Your task to perform on an android device: open app "Grab" Image 0: 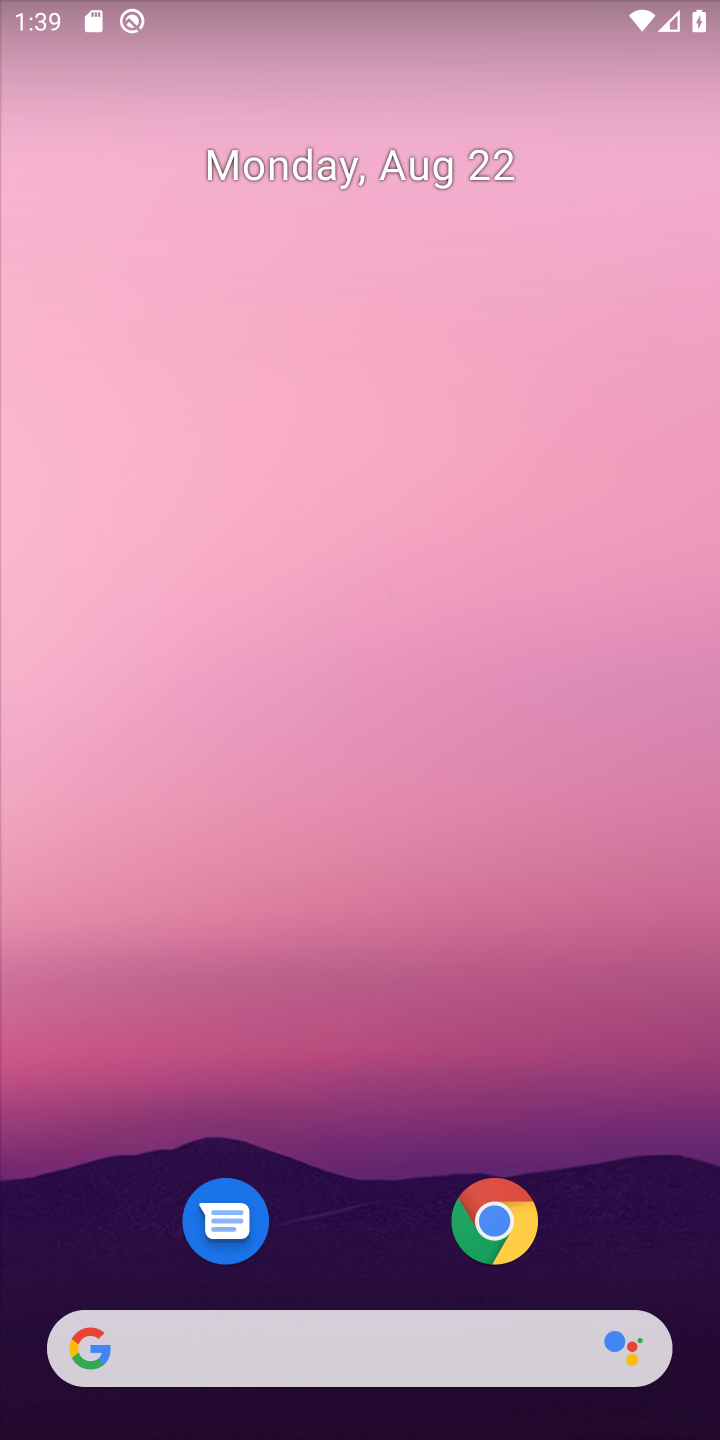
Step 0: press home button
Your task to perform on an android device: open app "Grab" Image 1: 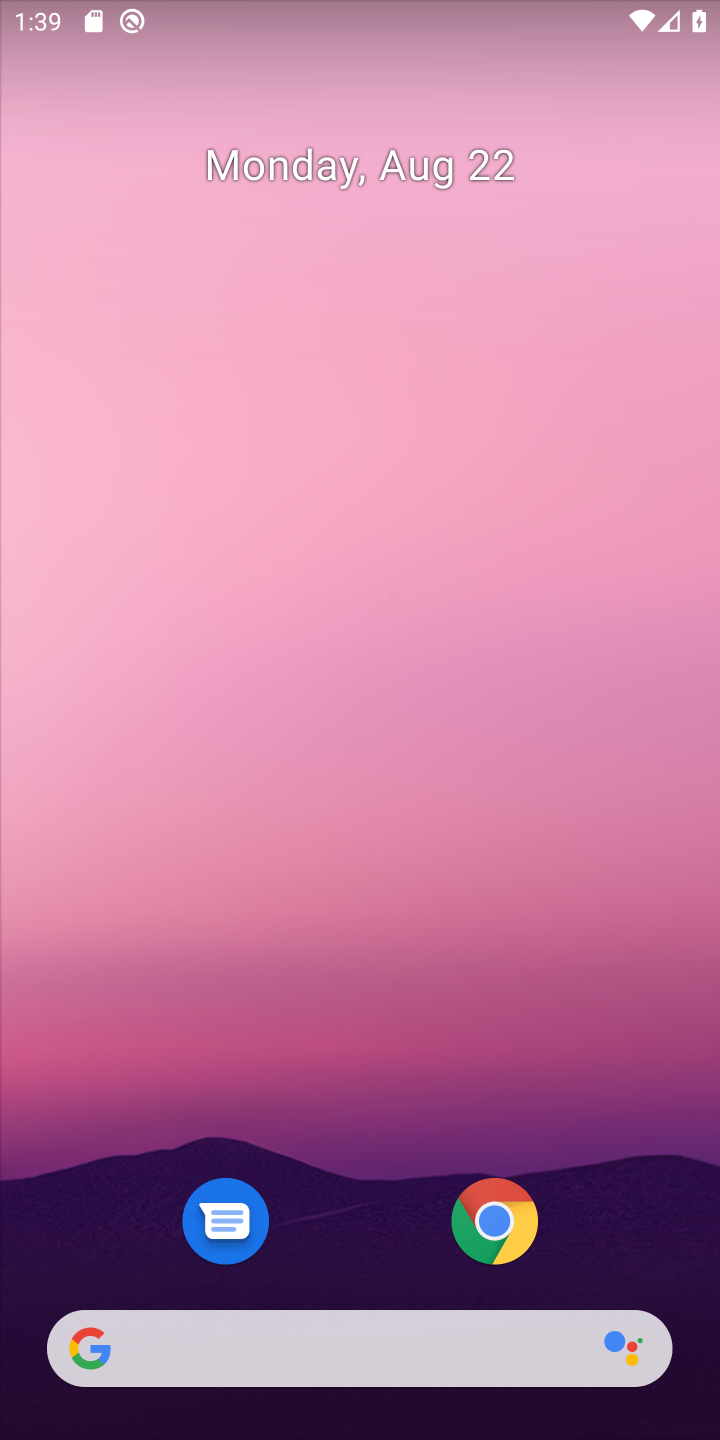
Step 1: drag from (379, 1255) to (631, 254)
Your task to perform on an android device: open app "Grab" Image 2: 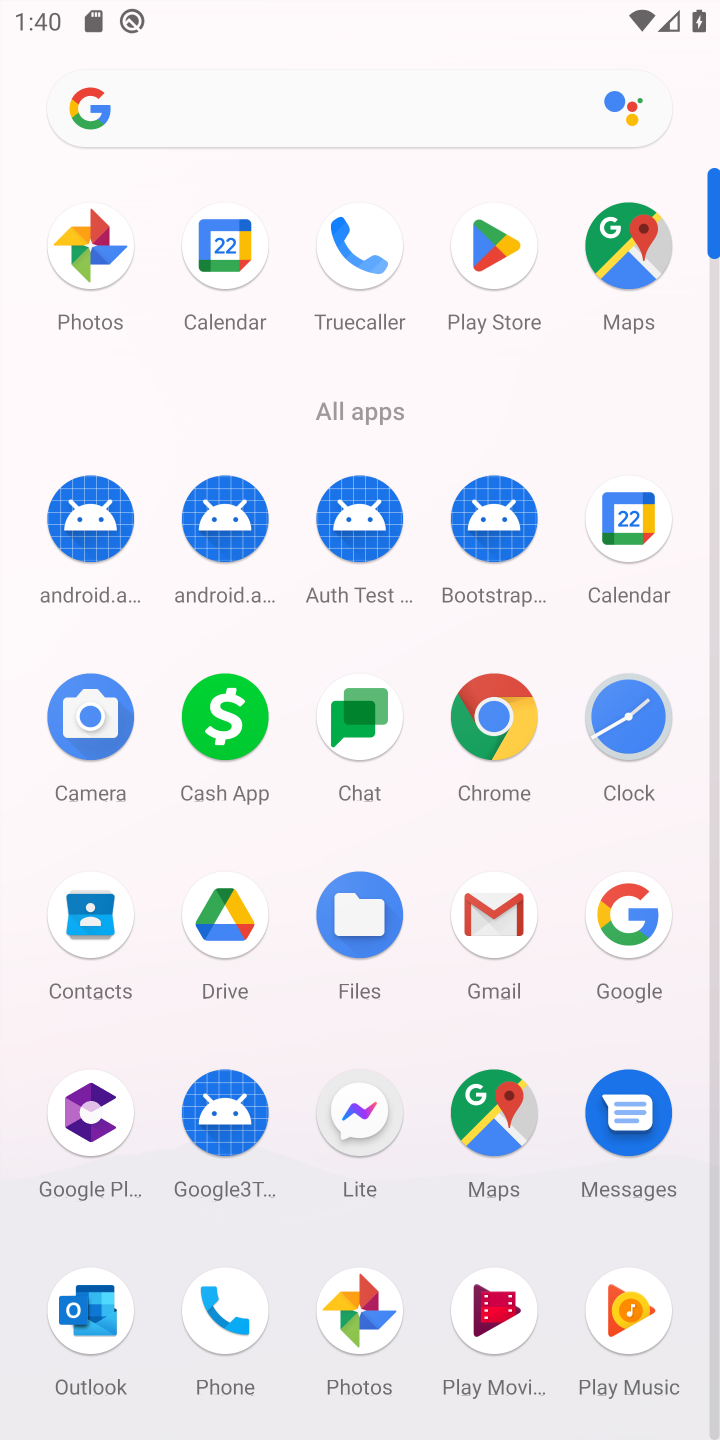
Step 2: click (491, 246)
Your task to perform on an android device: open app "Grab" Image 3: 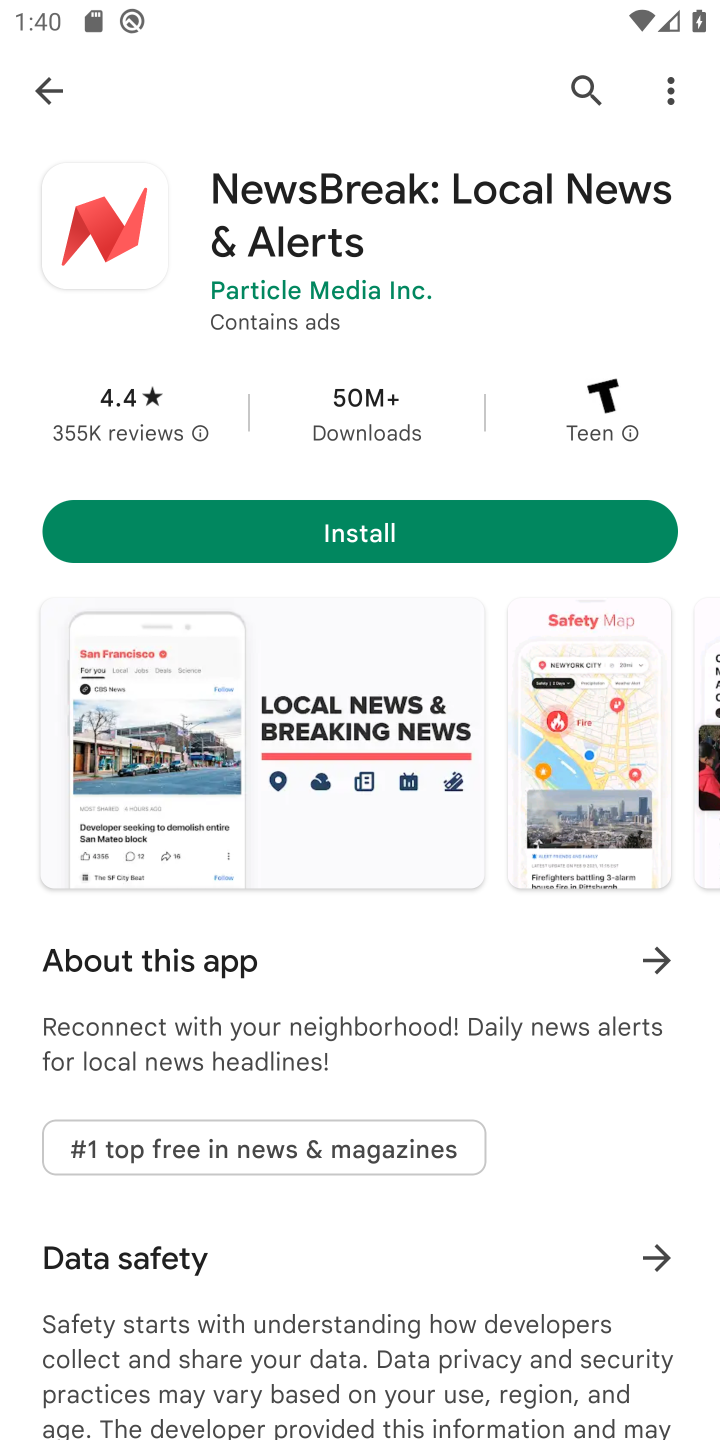
Step 3: click (588, 91)
Your task to perform on an android device: open app "Grab" Image 4: 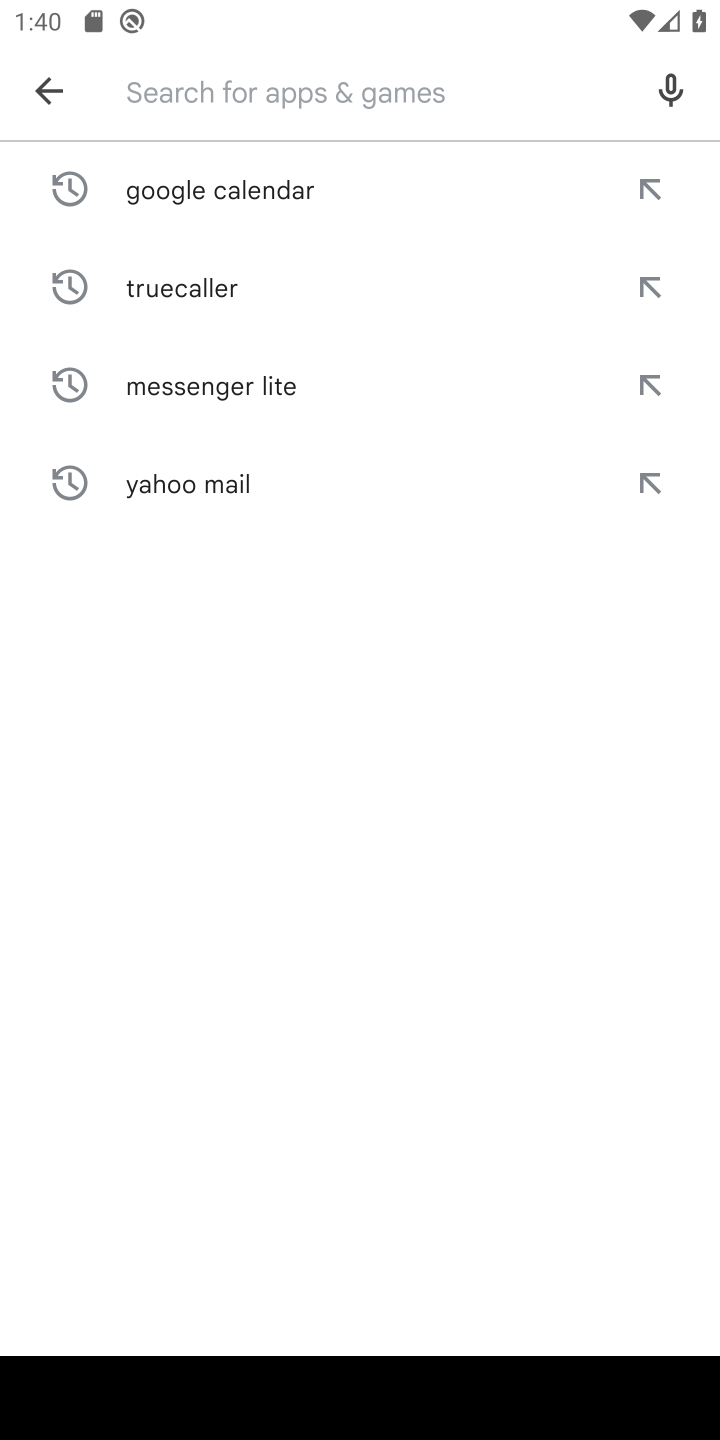
Step 4: type "grab"
Your task to perform on an android device: open app "Grab" Image 5: 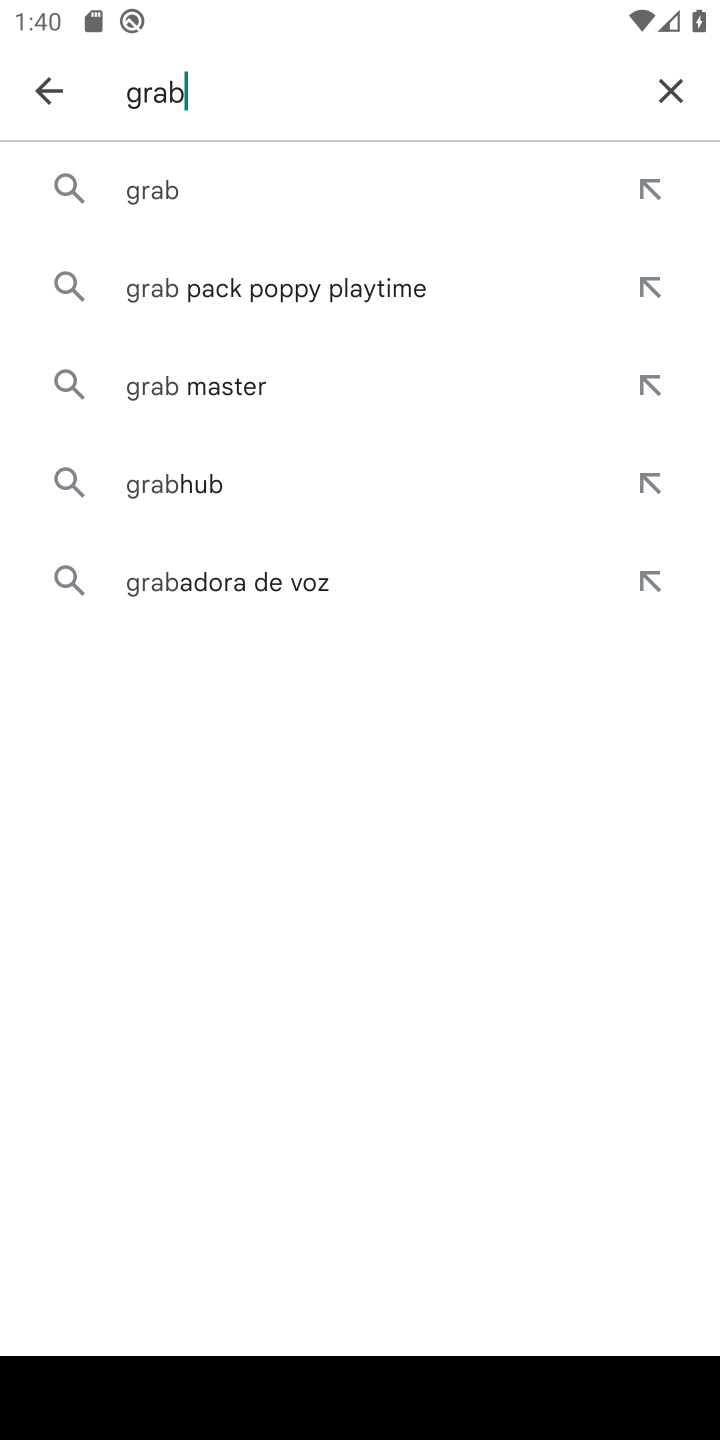
Step 5: click (195, 179)
Your task to perform on an android device: open app "Grab" Image 6: 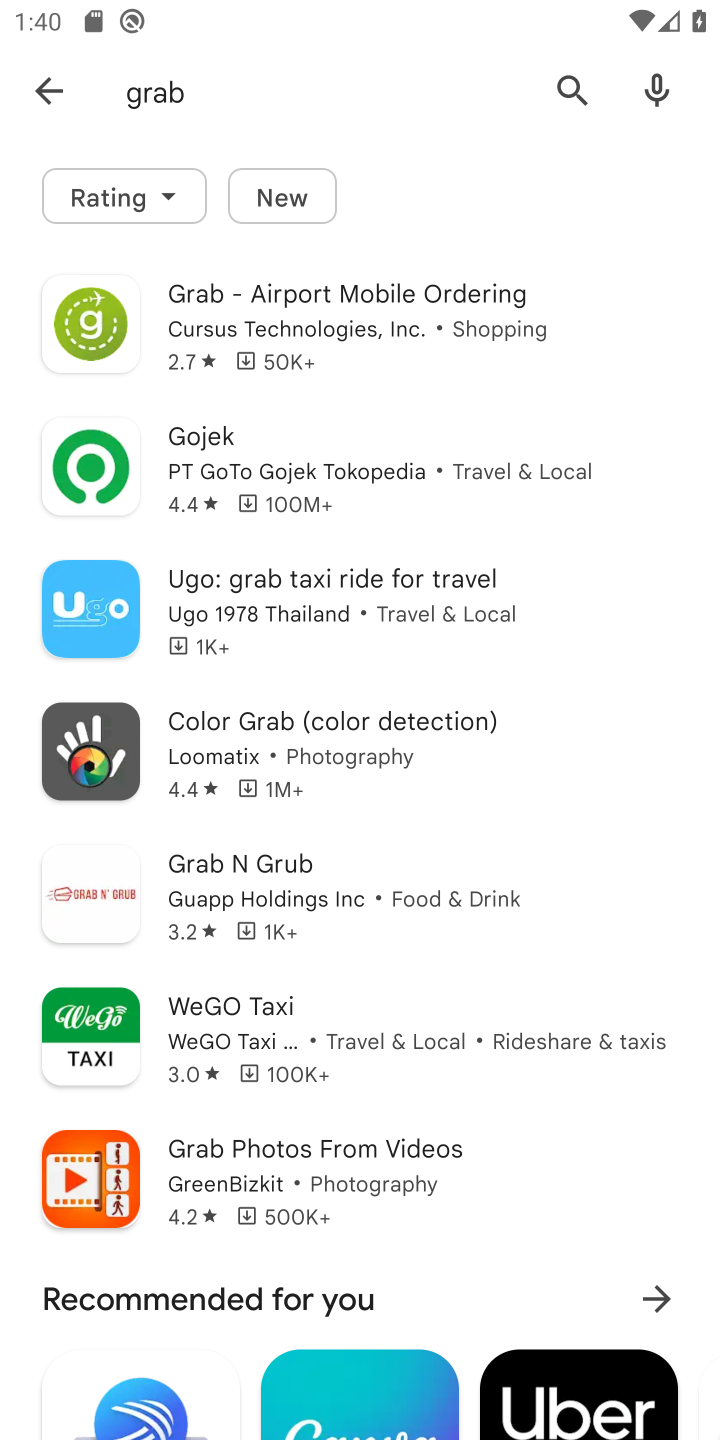
Step 6: task complete